Your task to perform on an android device: Open Yahoo.com Image 0: 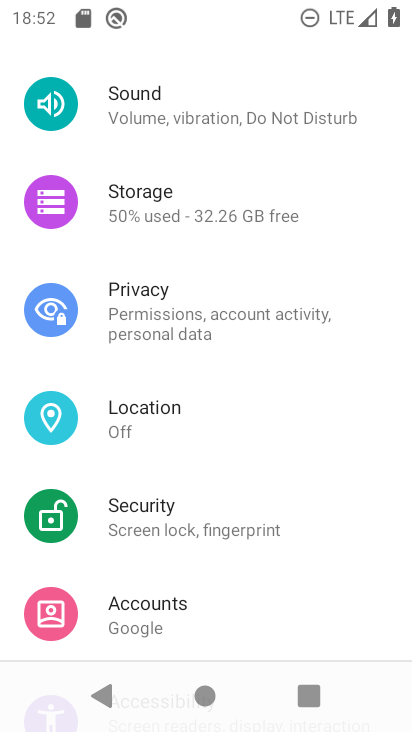
Step 0: press home button
Your task to perform on an android device: Open Yahoo.com Image 1: 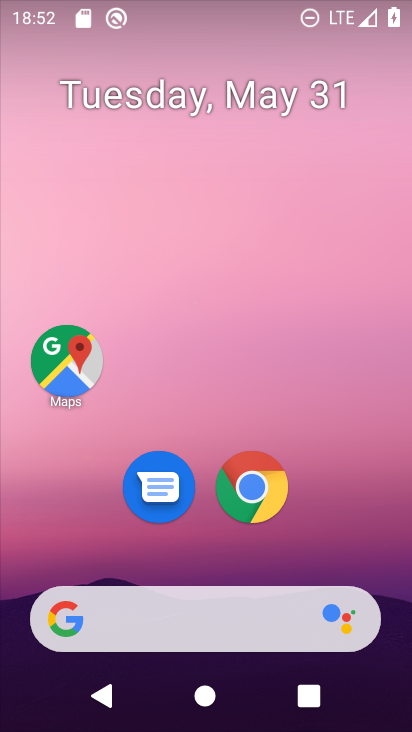
Step 1: click (264, 488)
Your task to perform on an android device: Open Yahoo.com Image 2: 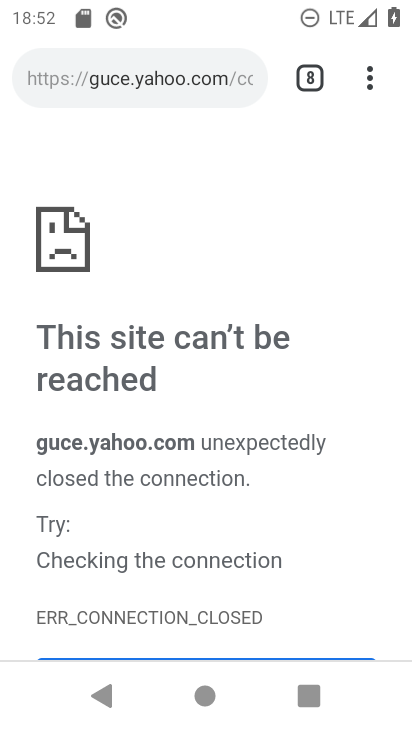
Step 2: click (368, 73)
Your task to perform on an android device: Open Yahoo.com Image 3: 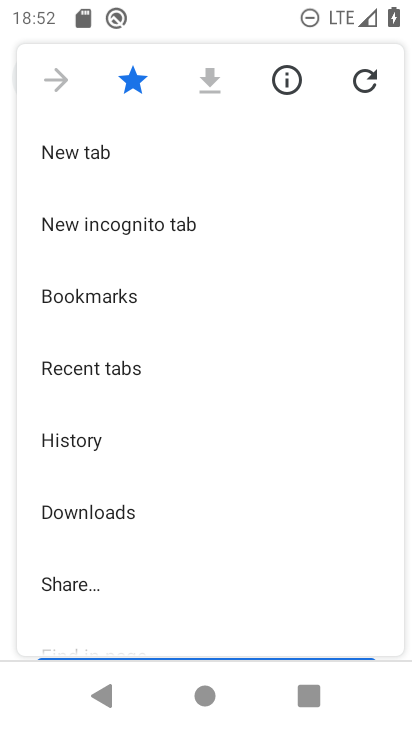
Step 3: click (77, 154)
Your task to perform on an android device: Open Yahoo.com Image 4: 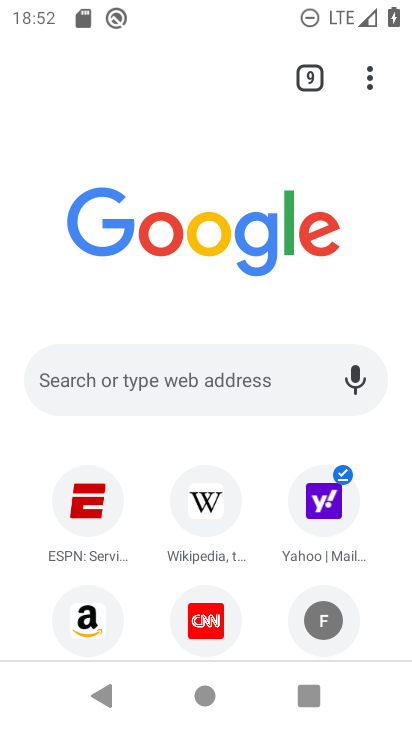
Step 4: click (328, 486)
Your task to perform on an android device: Open Yahoo.com Image 5: 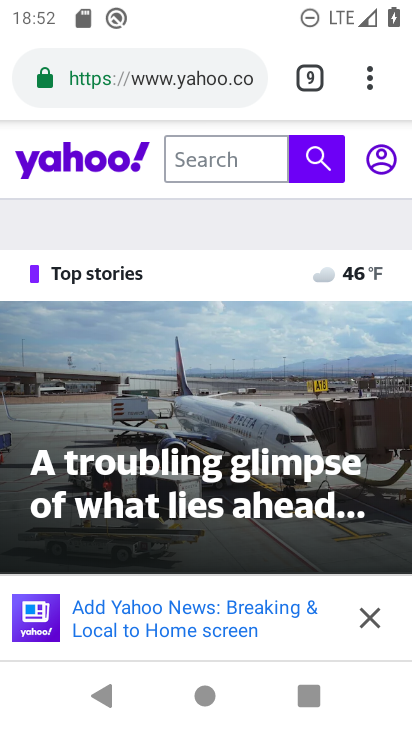
Step 5: task complete